Your task to perform on an android device: open device folders in google photos Image 0: 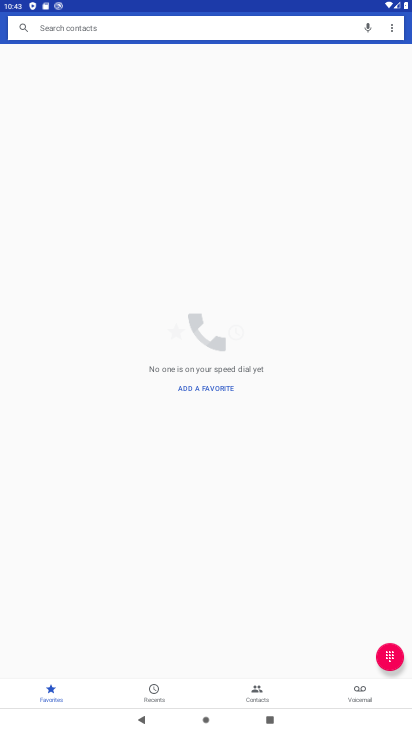
Step 0: drag from (387, 709) to (328, 175)
Your task to perform on an android device: open device folders in google photos Image 1: 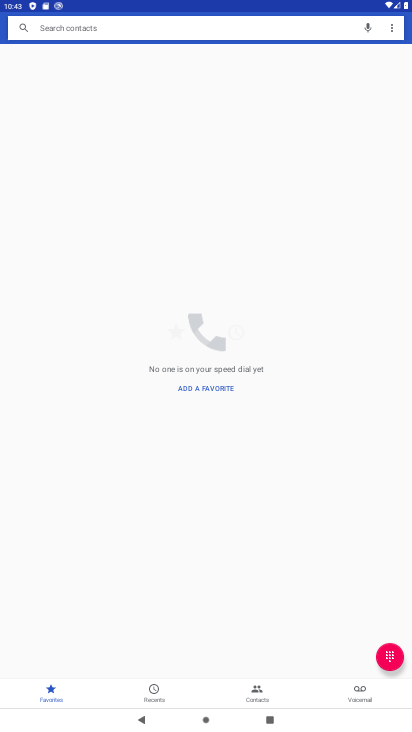
Step 1: press home button
Your task to perform on an android device: open device folders in google photos Image 2: 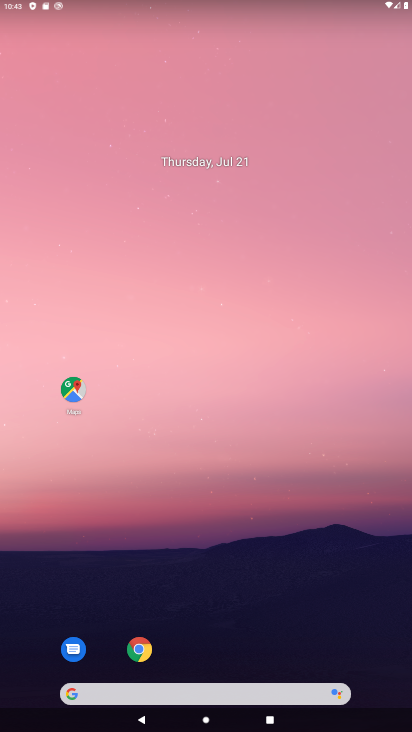
Step 2: drag from (379, 521) to (344, 147)
Your task to perform on an android device: open device folders in google photos Image 3: 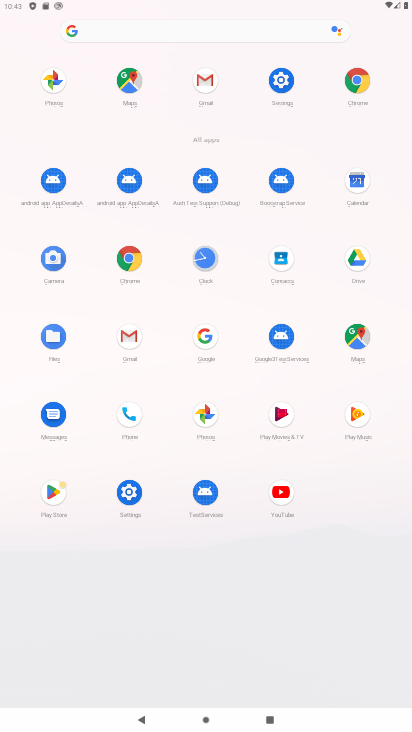
Step 3: click (209, 417)
Your task to perform on an android device: open device folders in google photos Image 4: 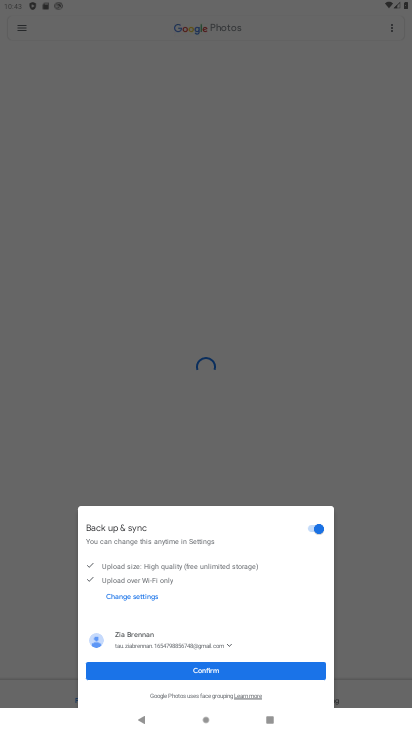
Step 4: click (240, 663)
Your task to perform on an android device: open device folders in google photos Image 5: 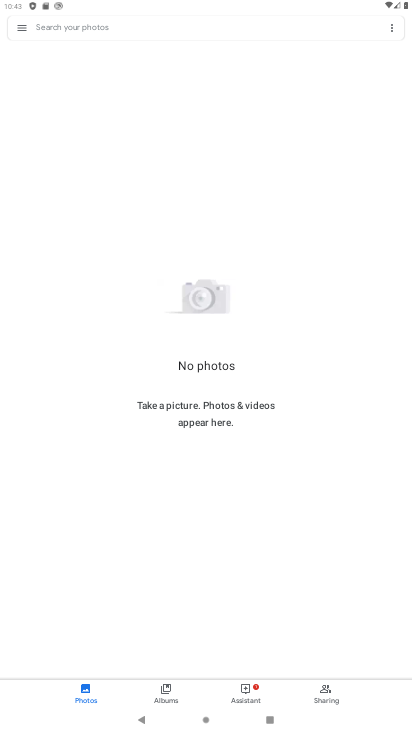
Step 5: click (21, 26)
Your task to perform on an android device: open device folders in google photos Image 6: 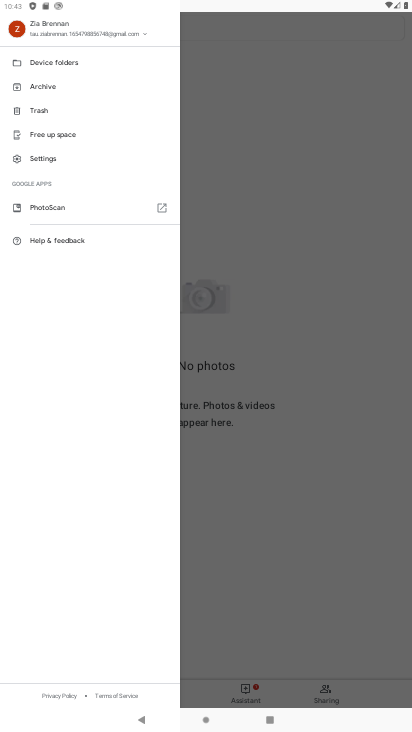
Step 6: click (63, 63)
Your task to perform on an android device: open device folders in google photos Image 7: 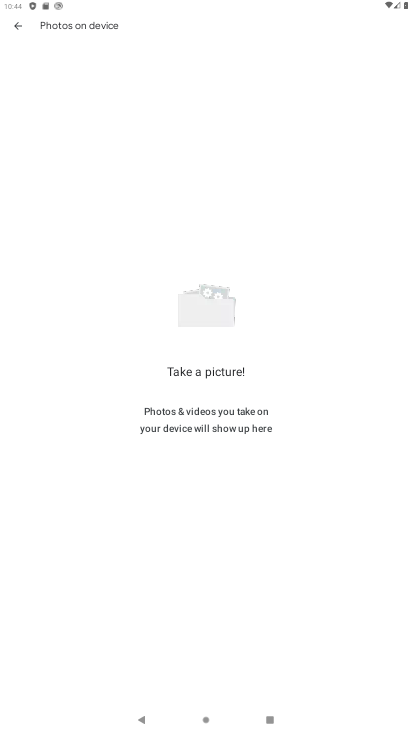
Step 7: task complete